Your task to perform on an android device: change timer sound Image 0: 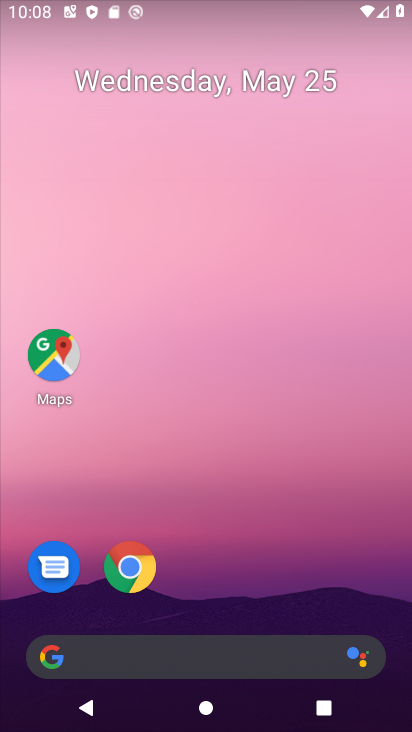
Step 0: drag from (343, 601) to (363, 131)
Your task to perform on an android device: change timer sound Image 1: 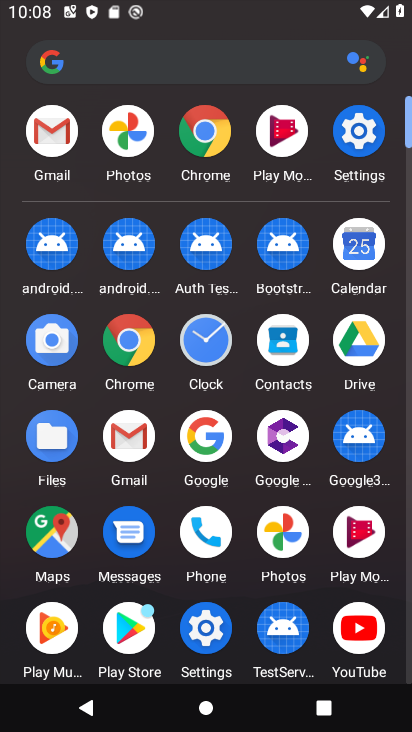
Step 1: click (362, 183)
Your task to perform on an android device: change timer sound Image 2: 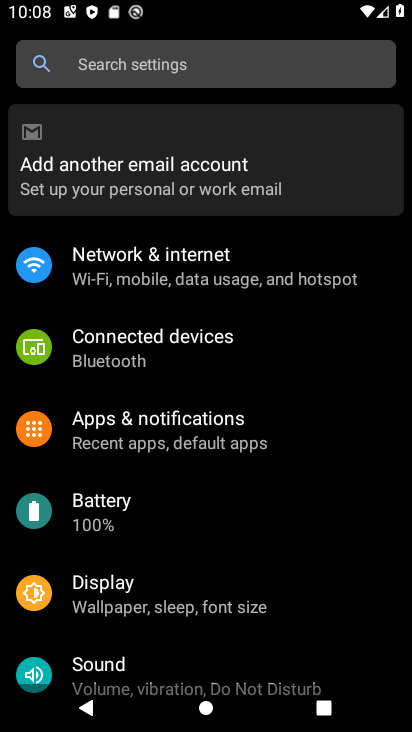
Step 2: click (175, 659)
Your task to perform on an android device: change timer sound Image 3: 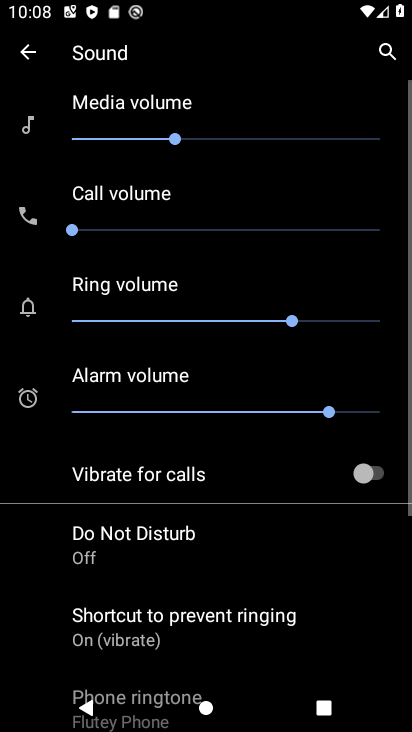
Step 3: task complete